Your task to perform on an android device: Turn off the flashlight Image 0: 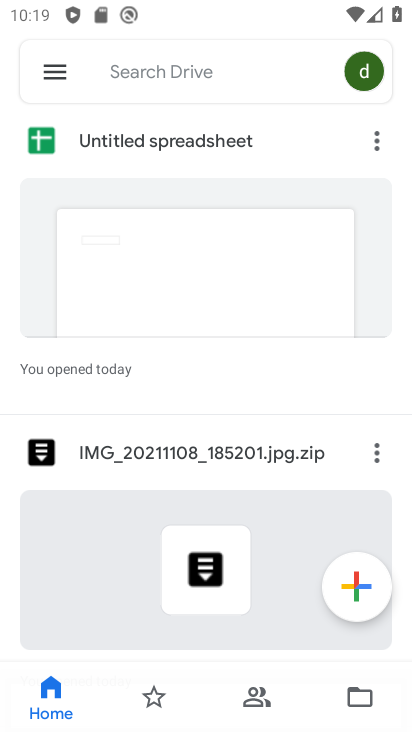
Step 0: press back button
Your task to perform on an android device: Turn off the flashlight Image 1: 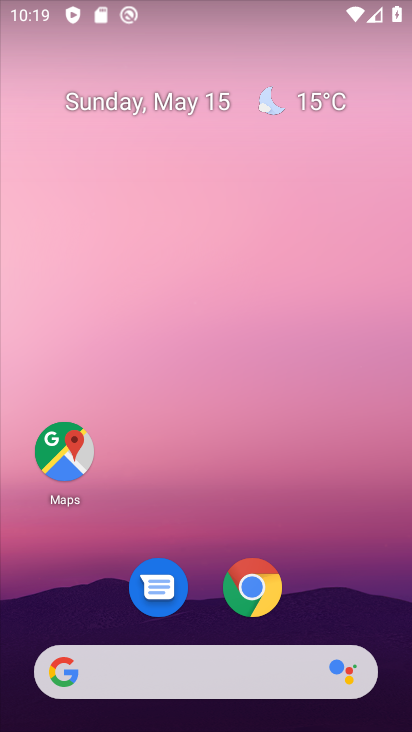
Step 1: task complete